Your task to perform on an android device: open device folders in google photos Image 0: 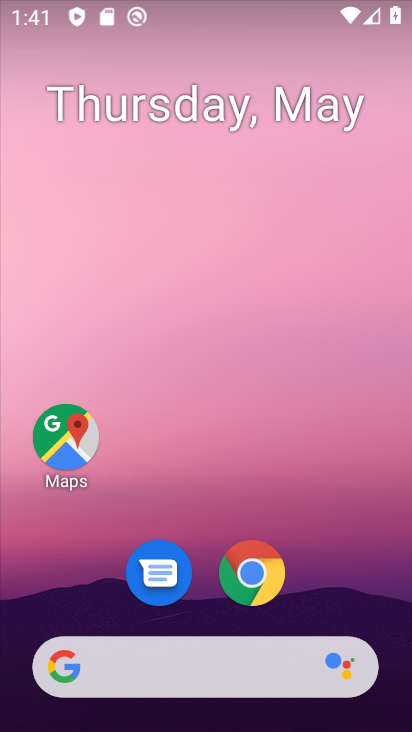
Step 0: drag from (334, 568) to (276, 159)
Your task to perform on an android device: open device folders in google photos Image 1: 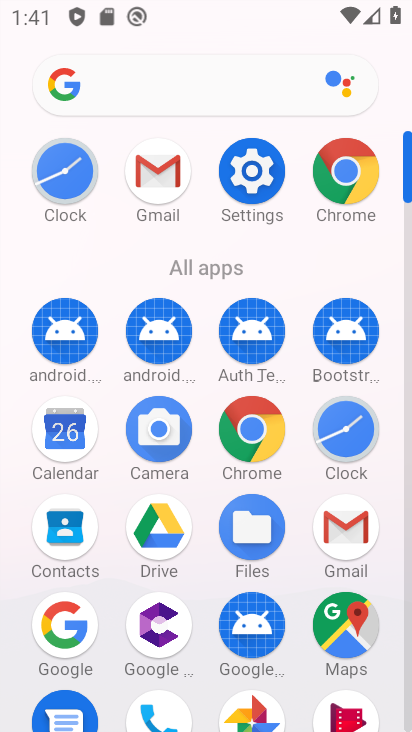
Step 1: click (404, 667)
Your task to perform on an android device: open device folders in google photos Image 2: 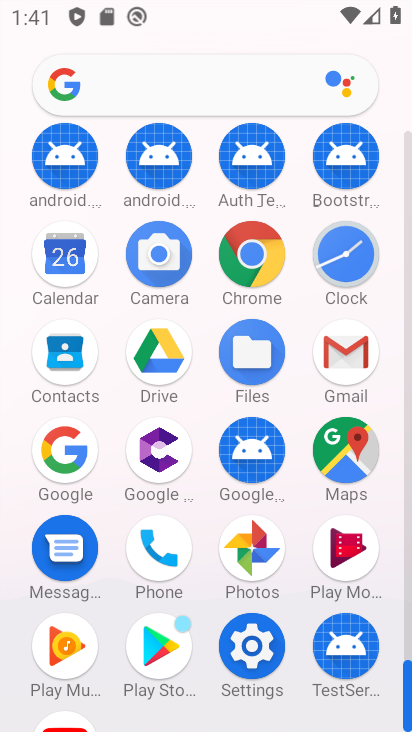
Step 2: click (256, 543)
Your task to perform on an android device: open device folders in google photos Image 3: 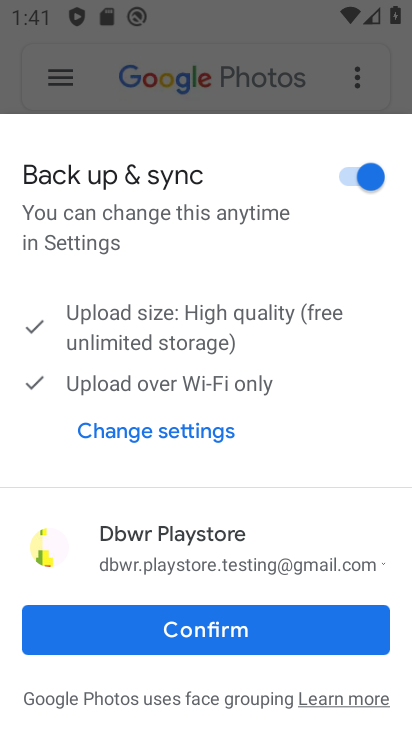
Step 3: click (229, 633)
Your task to perform on an android device: open device folders in google photos Image 4: 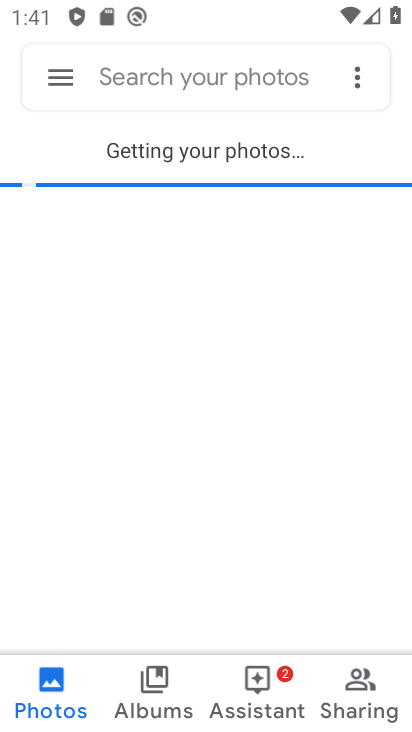
Step 4: click (51, 76)
Your task to perform on an android device: open device folders in google photos Image 5: 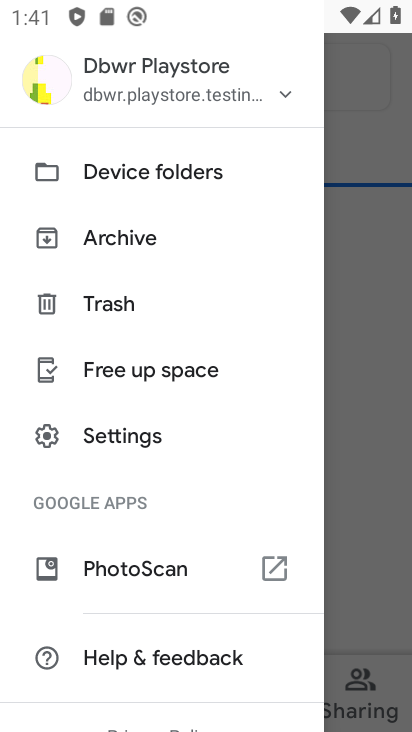
Step 5: click (161, 166)
Your task to perform on an android device: open device folders in google photos Image 6: 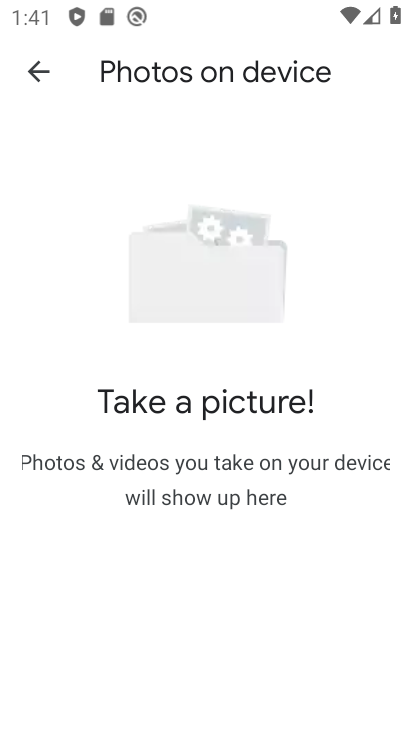
Step 6: task complete